Your task to perform on an android device: toggle improve location accuracy Image 0: 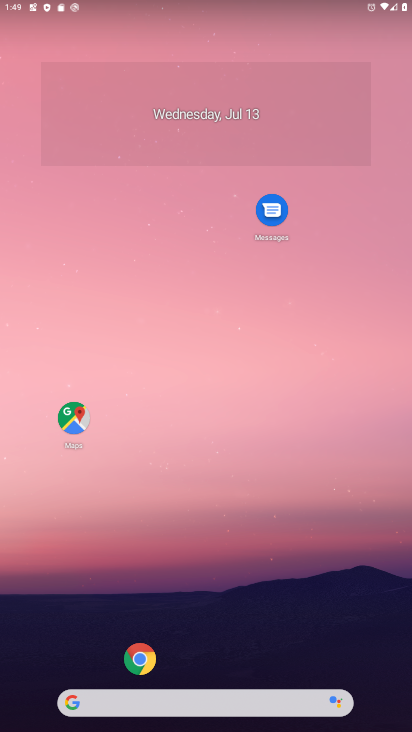
Step 0: drag from (61, 629) to (317, 48)
Your task to perform on an android device: toggle improve location accuracy Image 1: 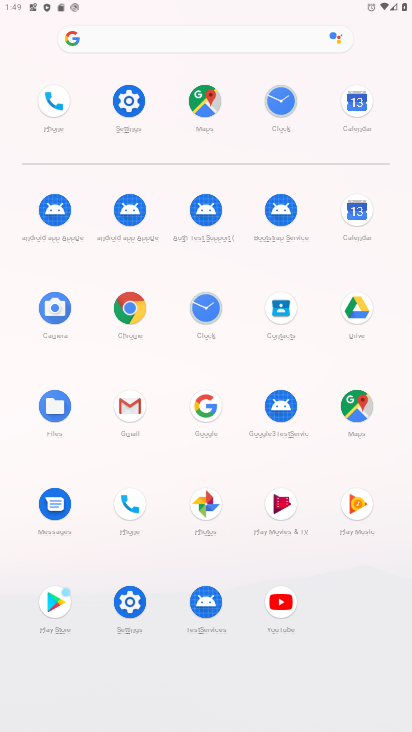
Step 1: click (136, 602)
Your task to perform on an android device: toggle improve location accuracy Image 2: 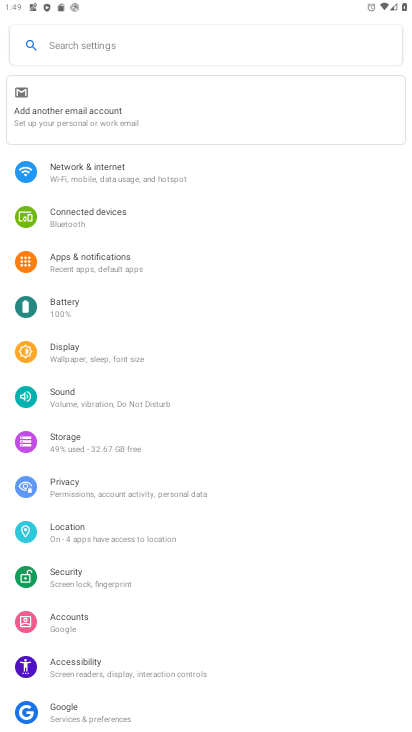
Step 2: click (110, 534)
Your task to perform on an android device: toggle improve location accuracy Image 3: 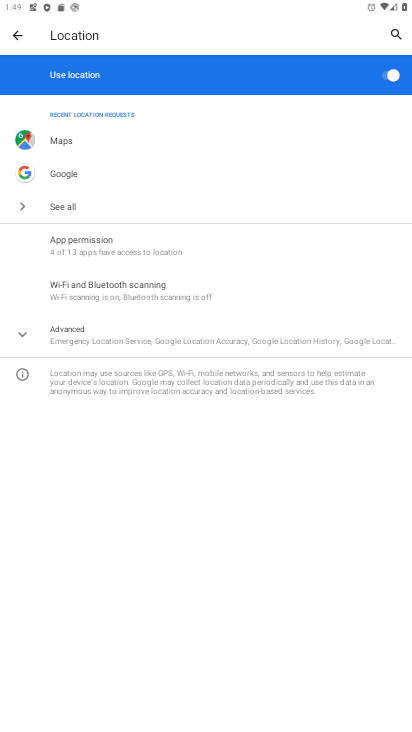
Step 3: click (84, 337)
Your task to perform on an android device: toggle improve location accuracy Image 4: 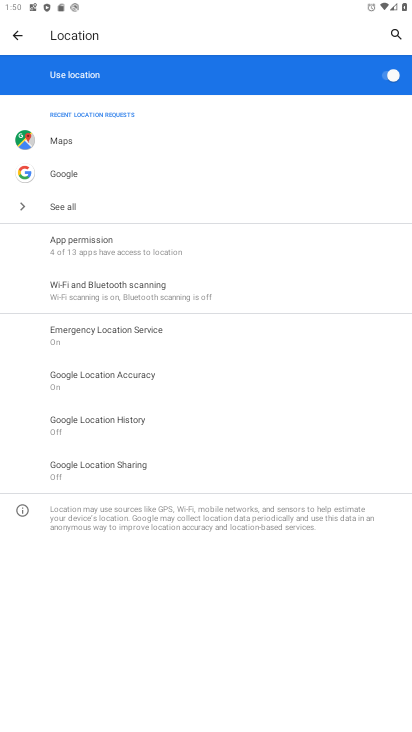
Step 4: click (147, 378)
Your task to perform on an android device: toggle improve location accuracy Image 5: 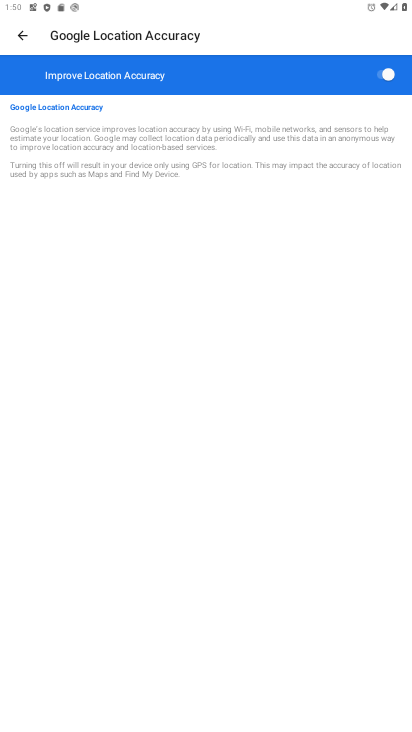
Step 5: task complete